Your task to perform on an android device: Open the calendar app, open the side menu, and click the "Day" option Image 0: 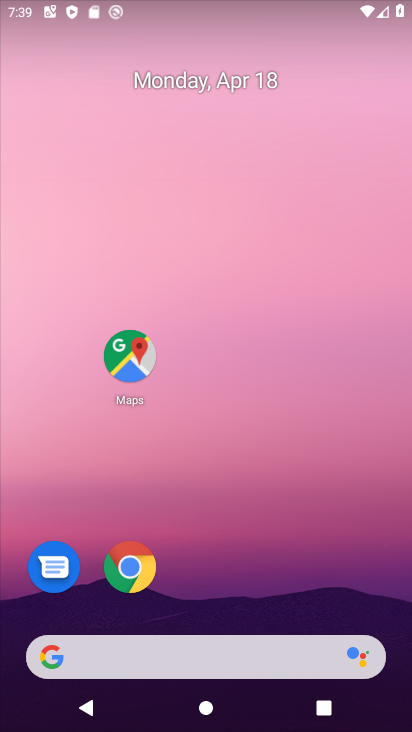
Step 0: drag from (250, 676) to (299, 149)
Your task to perform on an android device: Open the calendar app, open the side menu, and click the "Day" option Image 1: 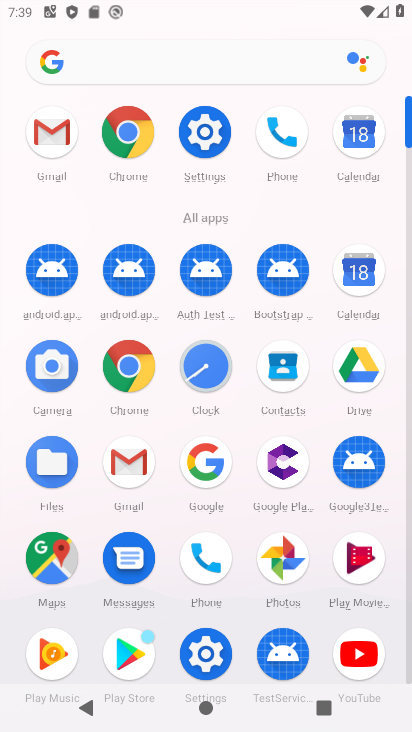
Step 1: click (367, 273)
Your task to perform on an android device: Open the calendar app, open the side menu, and click the "Day" option Image 2: 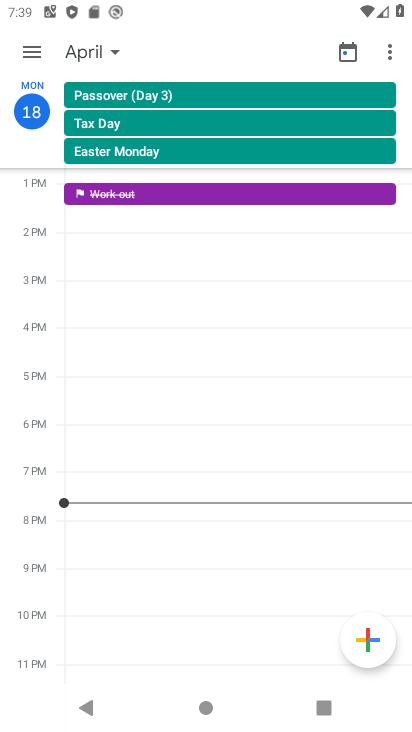
Step 2: click (40, 41)
Your task to perform on an android device: Open the calendar app, open the side menu, and click the "Day" option Image 3: 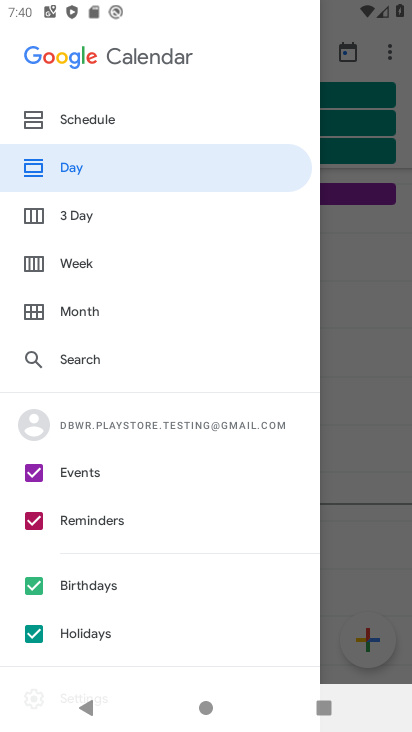
Step 3: click (83, 184)
Your task to perform on an android device: Open the calendar app, open the side menu, and click the "Day" option Image 4: 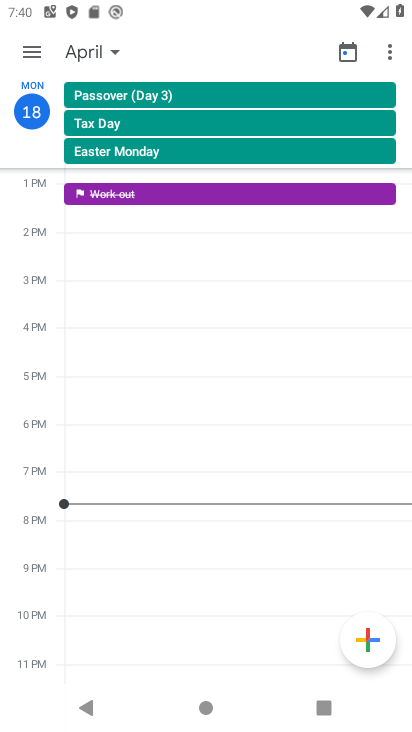
Step 4: task complete